Your task to perform on an android device: open a bookmark in the chrome app Image 0: 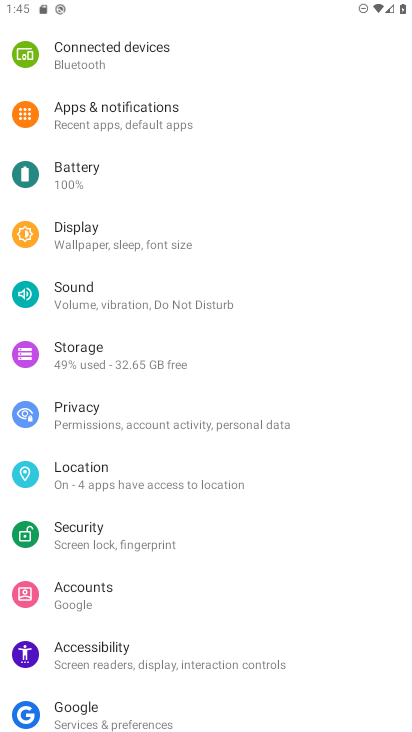
Step 0: press home button
Your task to perform on an android device: open a bookmark in the chrome app Image 1: 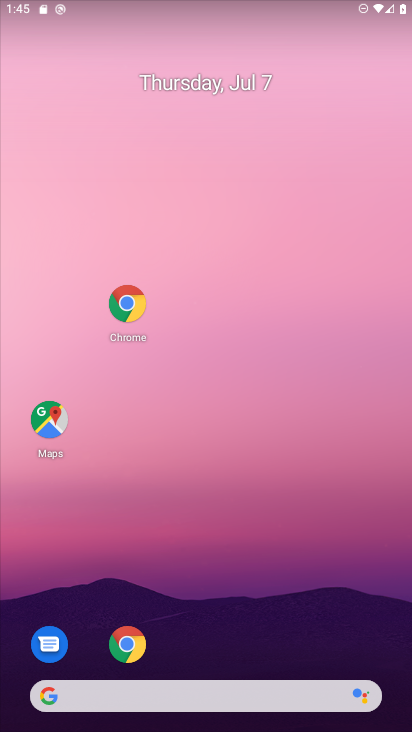
Step 1: drag from (267, 612) to (278, 80)
Your task to perform on an android device: open a bookmark in the chrome app Image 2: 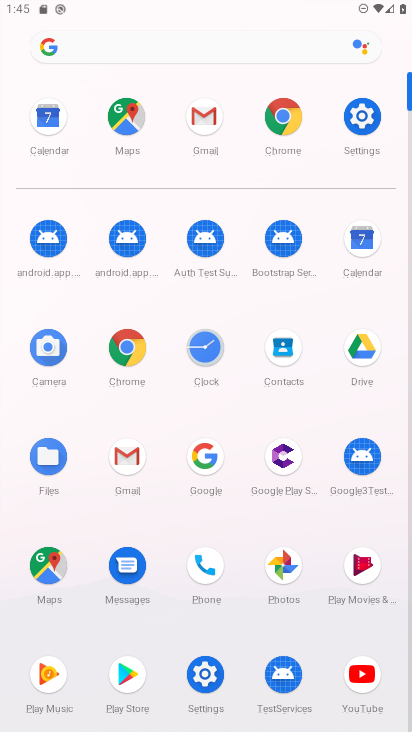
Step 2: click (140, 367)
Your task to perform on an android device: open a bookmark in the chrome app Image 3: 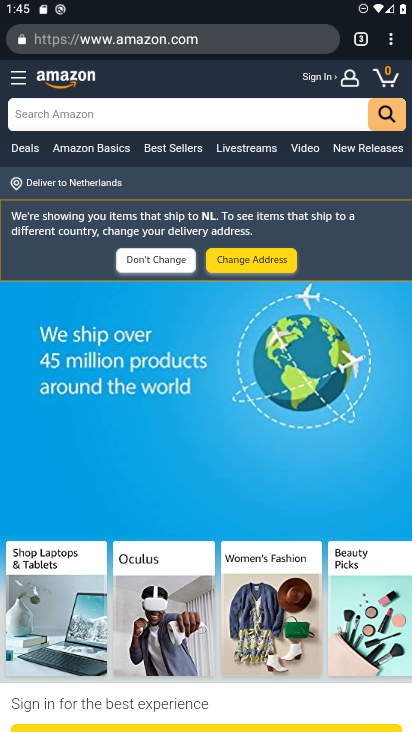
Step 3: click (388, 43)
Your task to perform on an android device: open a bookmark in the chrome app Image 4: 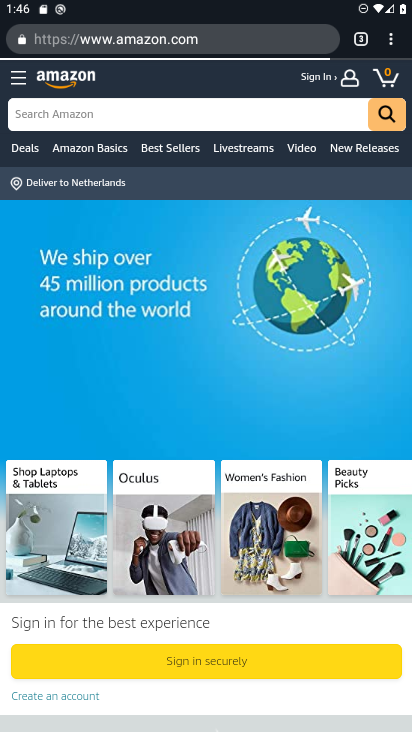
Step 4: click (394, 45)
Your task to perform on an android device: open a bookmark in the chrome app Image 5: 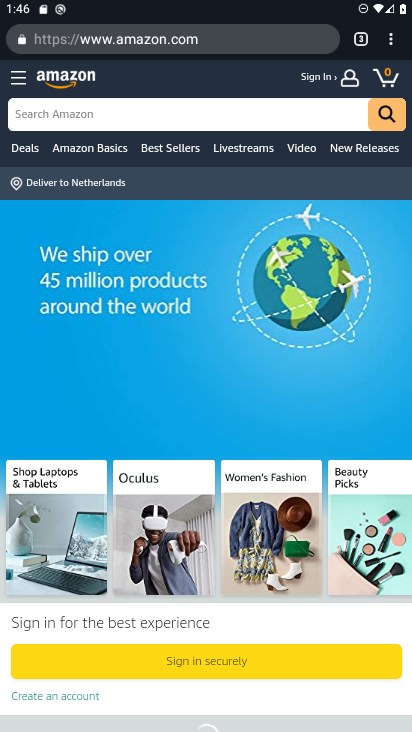
Step 5: click (394, 45)
Your task to perform on an android device: open a bookmark in the chrome app Image 6: 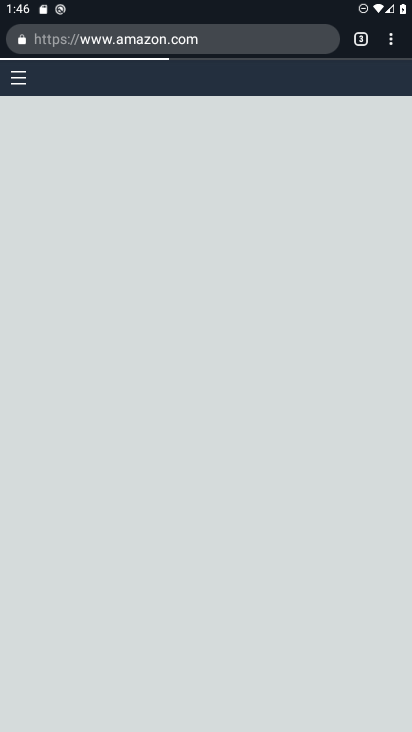
Step 6: click (394, 45)
Your task to perform on an android device: open a bookmark in the chrome app Image 7: 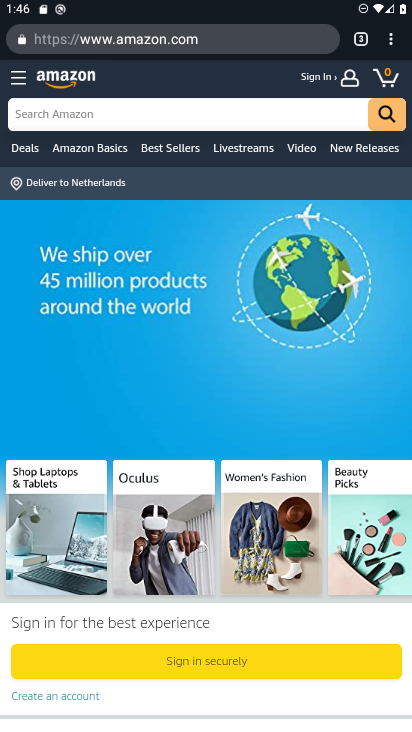
Step 7: click (394, 38)
Your task to perform on an android device: open a bookmark in the chrome app Image 8: 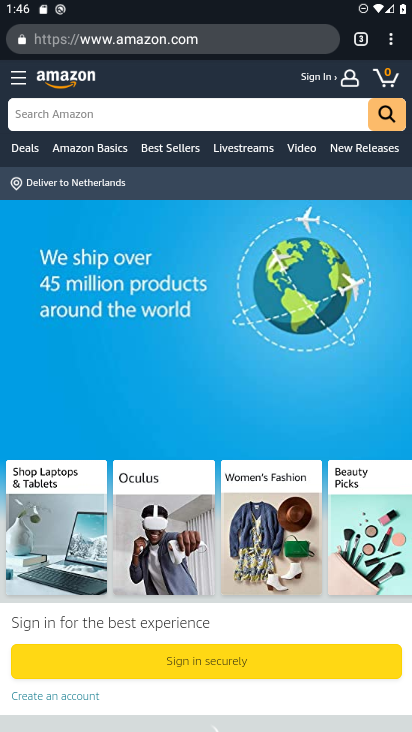
Step 8: click (391, 38)
Your task to perform on an android device: open a bookmark in the chrome app Image 9: 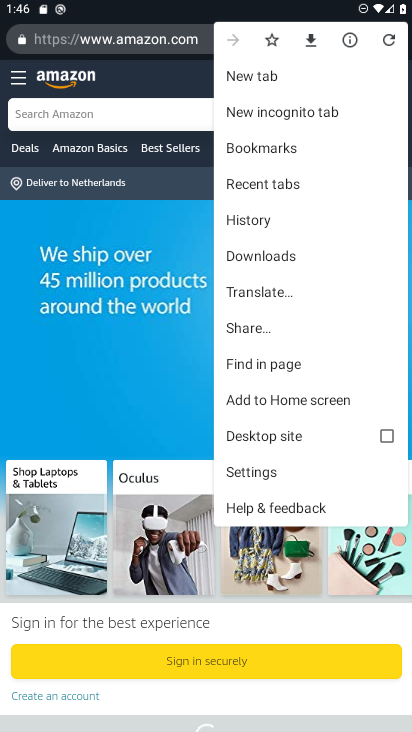
Step 9: click (314, 149)
Your task to perform on an android device: open a bookmark in the chrome app Image 10: 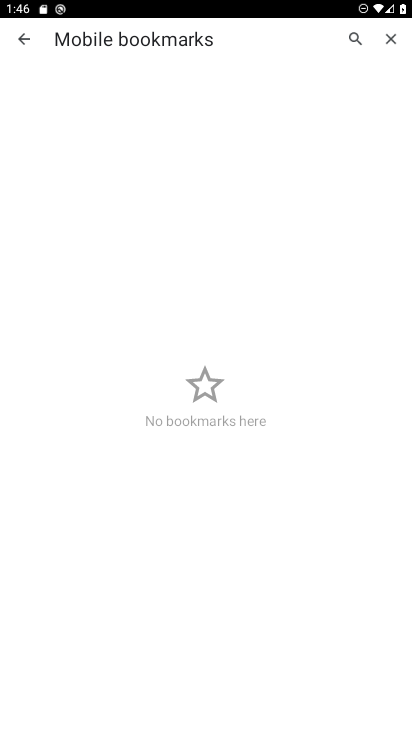
Step 10: task complete